Your task to perform on an android device: Open calendar and show me the second week of next month Image 0: 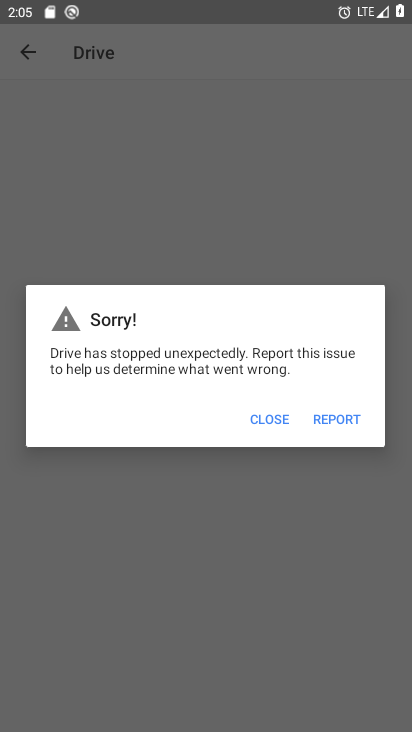
Step 0: press home button
Your task to perform on an android device: Open calendar and show me the second week of next month Image 1: 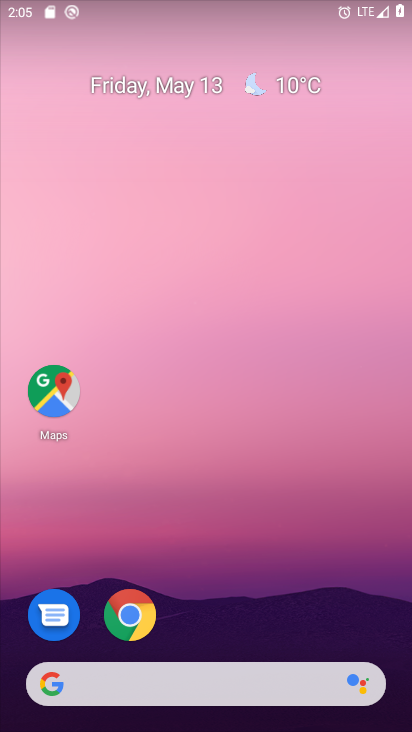
Step 1: drag from (266, 558) to (352, 56)
Your task to perform on an android device: Open calendar and show me the second week of next month Image 2: 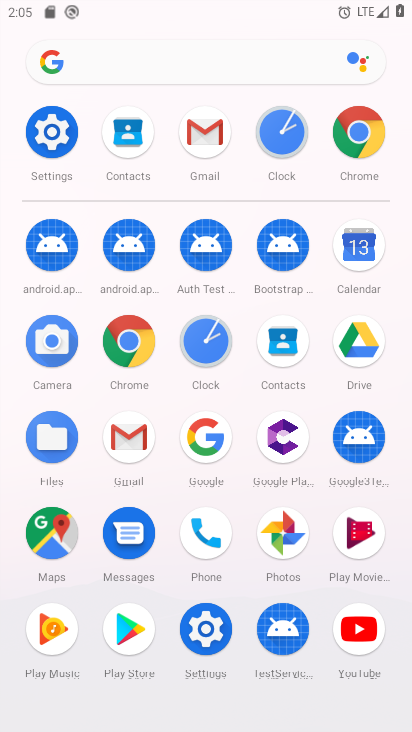
Step 2: click (360, 249)
Your task to perform on an android device: Open calendar and show me the second week of next month Image 3: 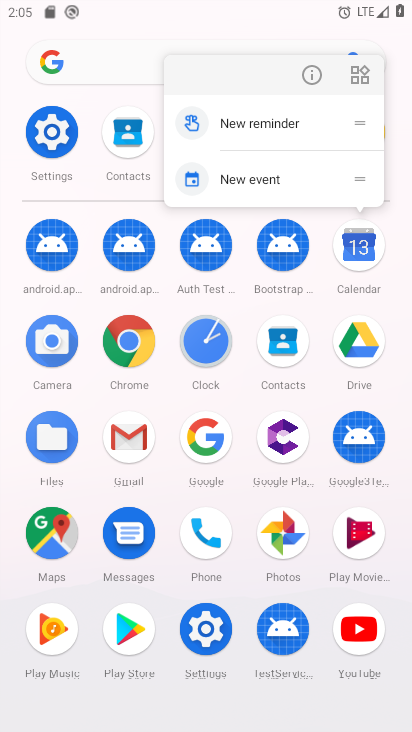
Step 3: click (360, 247)
Your task to perform on an android device: Open calendar and show me the second week of next month Image 4: 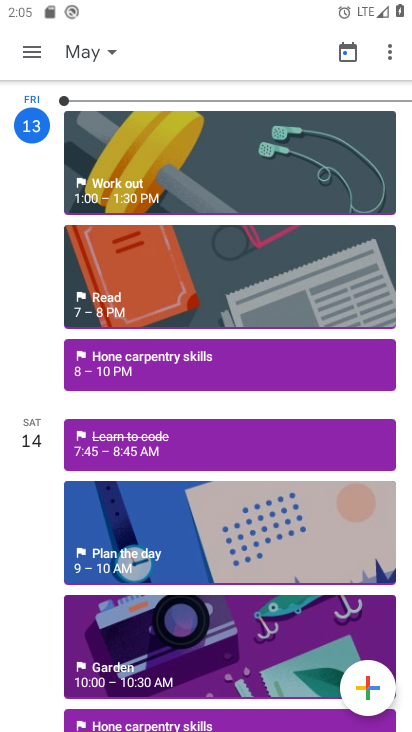
Step 4: click (34, 50)
Your task to perform on an android device: Open calendar and show me the second week of next month Image 5: 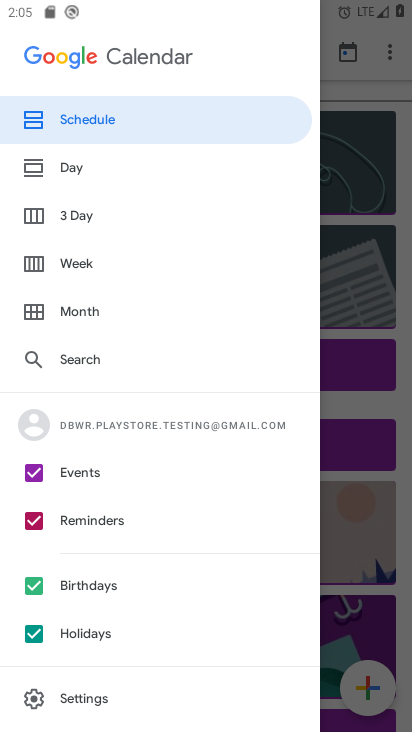
Step 5: click (60, 300)
Your task to perform on an android device: Open calendar and show me the second week of next month Image 6: 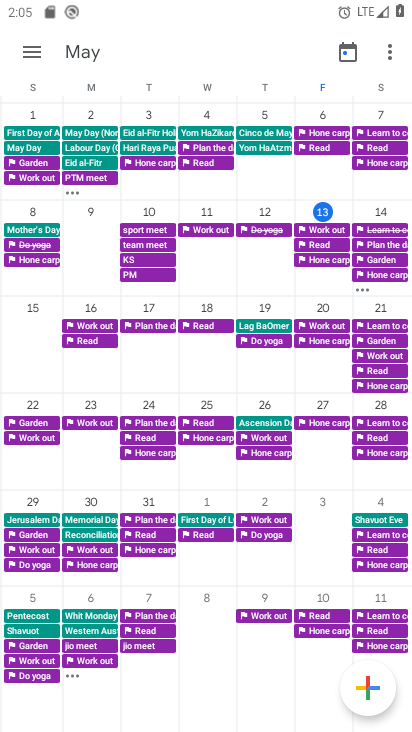
Step 6: drag from (361, 479) to (0, 575)
Your task to perform on an android device: Open calendar and show me the second week of next month Image 7: 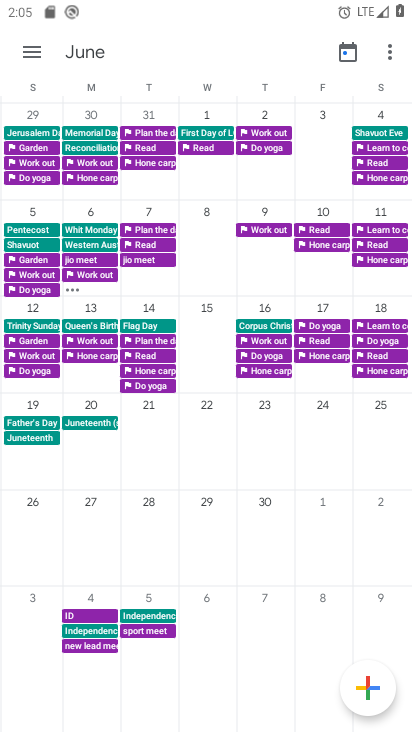
Step 7: click (36, 296)
Your task to perform on an android device: Open calendar and show me the second week of next month Image 8: 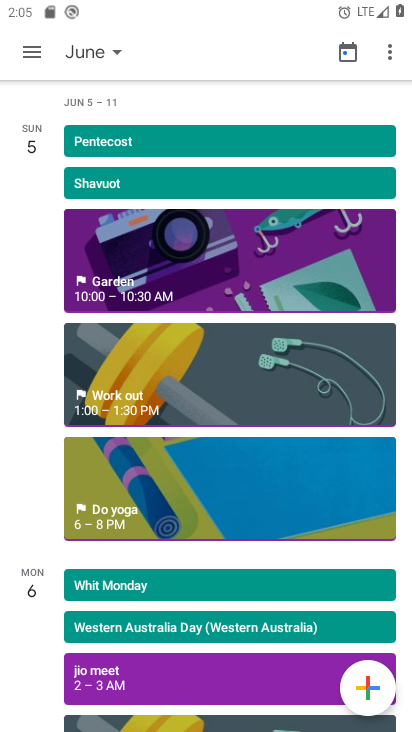
Step 8: drag from (178, 635) to (303, 112)
Your task to perform on an android device: Open calendar and show me the second week of next month Image 9: 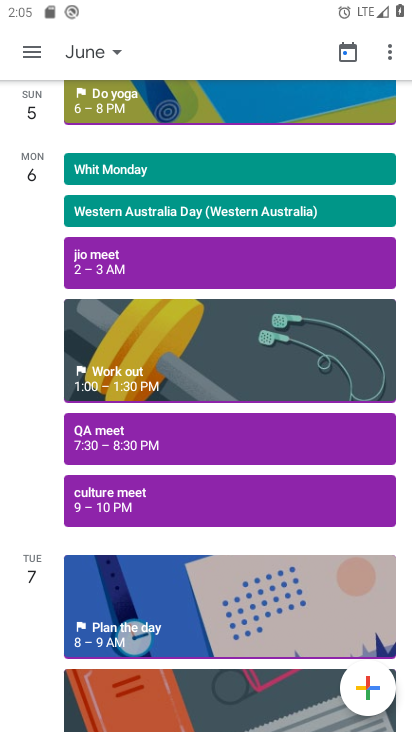
Step 9: drag from (139, 615) to (250, 86)
Your task to perform on an android device: Open calendar and show me the second week of next month Image 10: 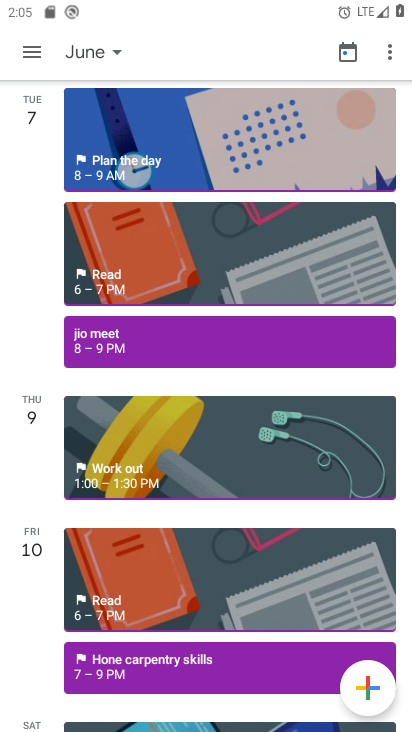
Step 10: drag from (195, 556) to (291, 123)
Your task to perform on an android device: Open calendar and show me the second week of next month Image 11: 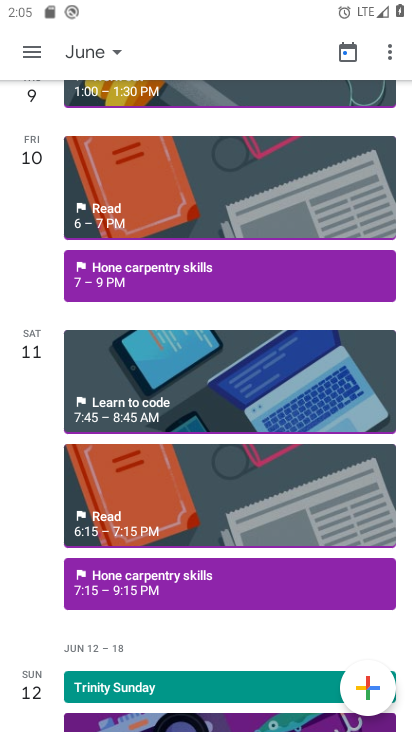
Step 11: drag from (220, 559) to (270, 158)
Your task to perform on an android device: Open calendar and show me the second week of next month Image 12: 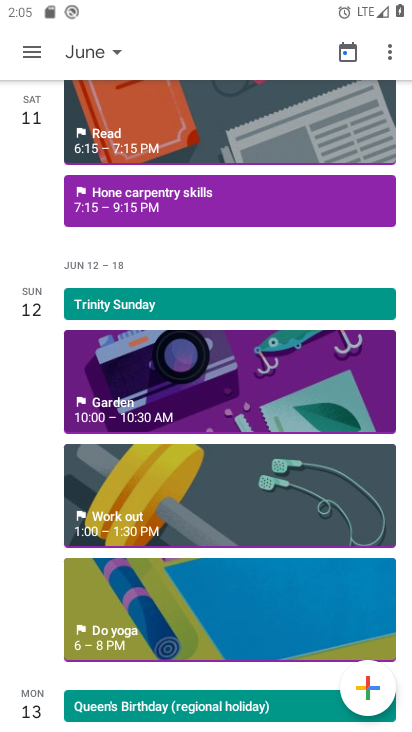
Step 12: drag from (193, 464) to (272, 142)
Your task to perform on an android device: Open calendar and show me the second week of next month Image 13: 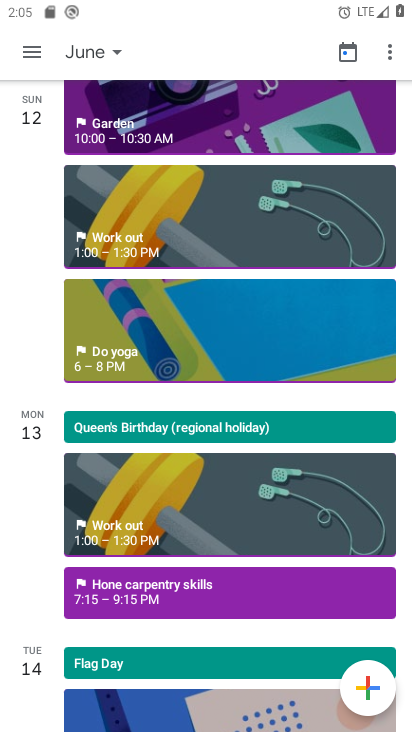
Step 13: click (29, 41)
Your task to perform on an android device: Open calendar and show me the second week of next month Image 14: 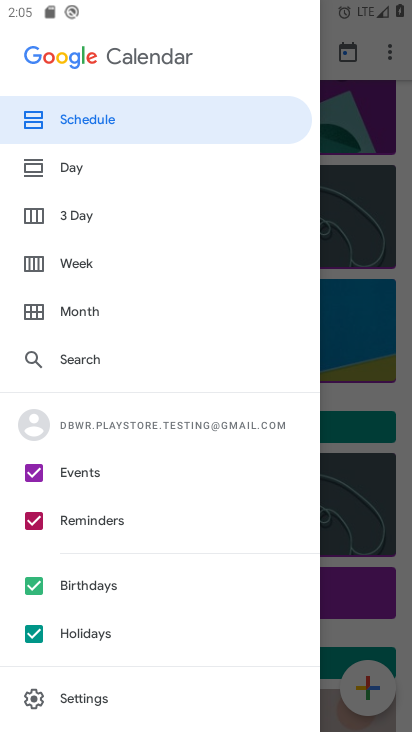
Step 14: click (50, 255)
Your task to perform on an android device: Open calendar and show me the second week of next month Image 15: 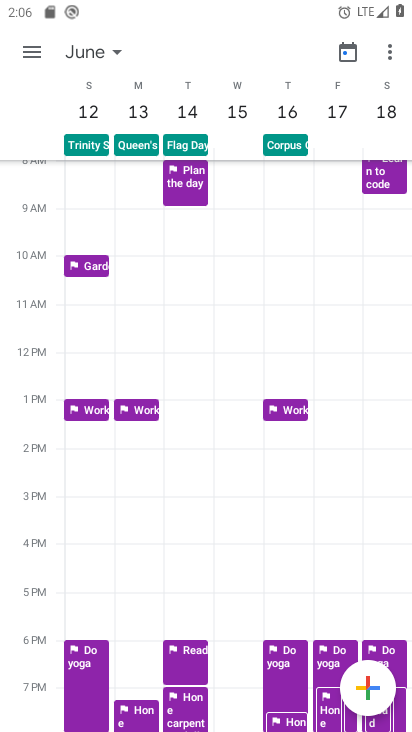
Step 15: task complete